Your task to perform on an android device: Go to network settings Image 0: 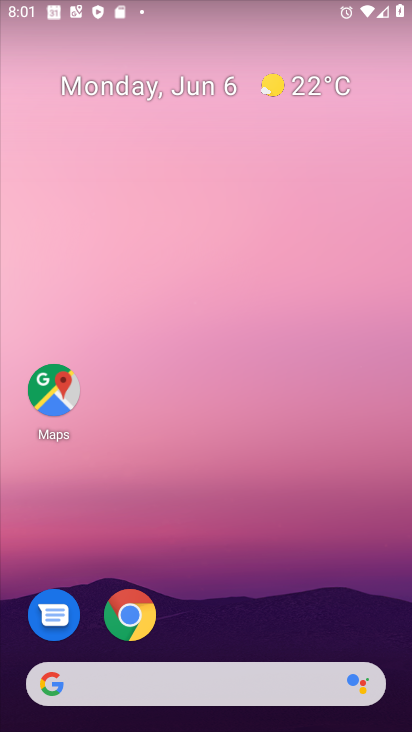
Step 0: drag from (399, 704) to (338, 39)
Your task to perform on an android device: Go to network settings Image 1: 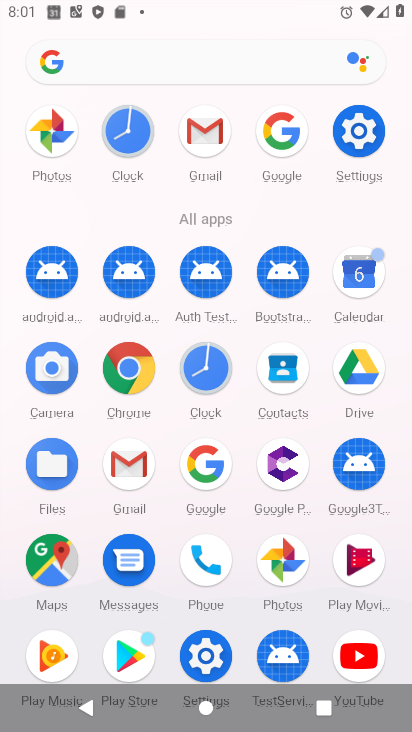
Step 1: click (351, 128)
Your task to perform on an android device: Go to network settings Image 2: 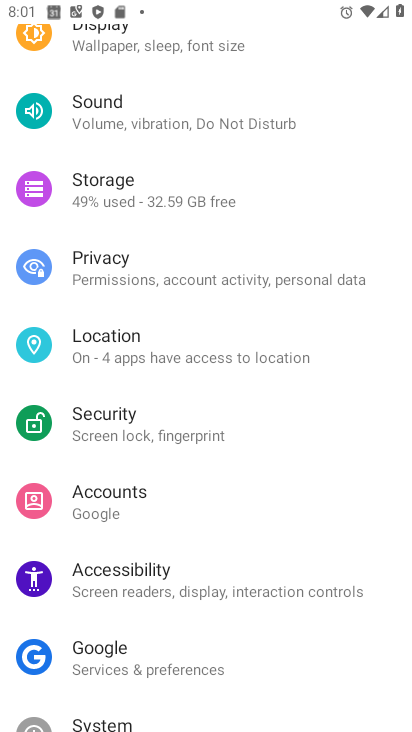
Step 2: drag from (260, 77) to (290, 560)
Your task to perform on an android device: Go to network settings Image 3: 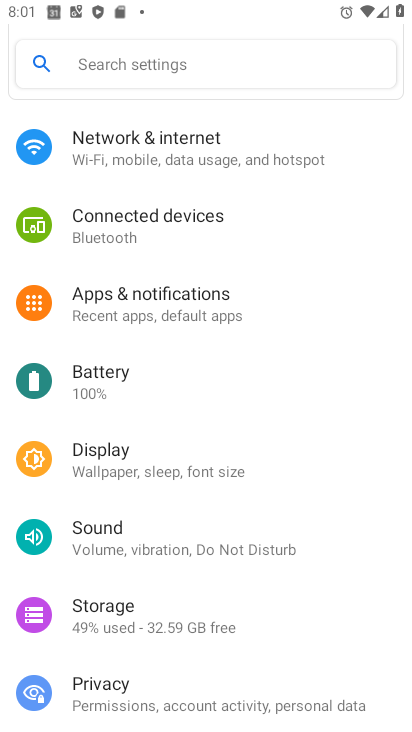
Step 3: click (119, 151)
Your task to perform on an android device: Go to network settings Image 4: 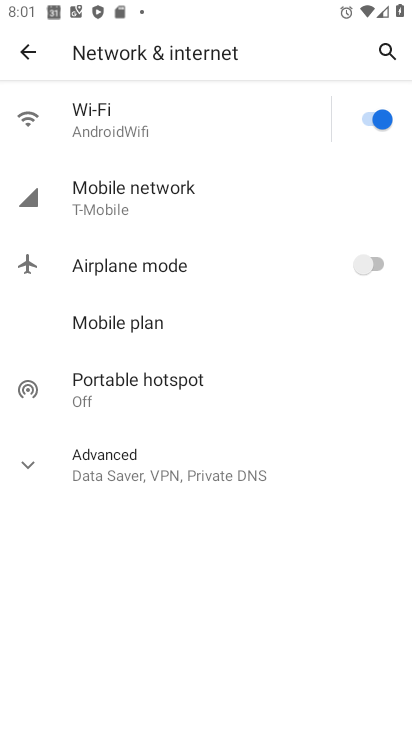
Step 4: click (149, 208)
Your task to perform on an android device: Go to network settings Image 5: 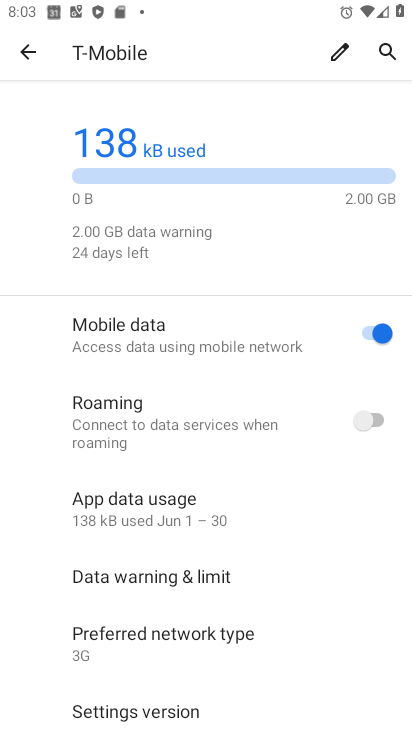
Step 5: task complete